Your task to perform on an android device: turn off wifi Image 0: 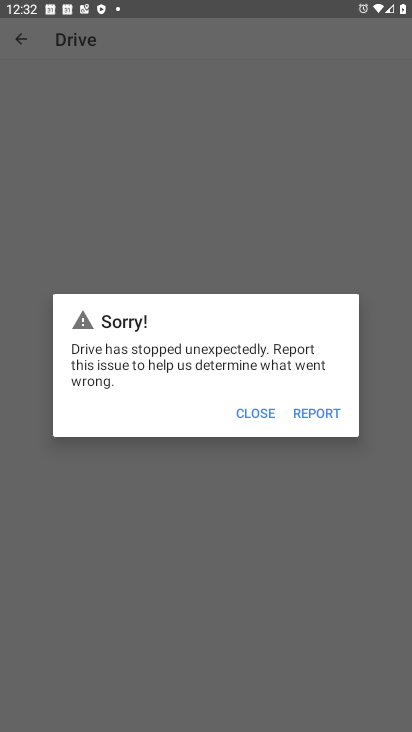
Step 0: press home button
Your task to perform on an android device: turn off wifi Image 1: 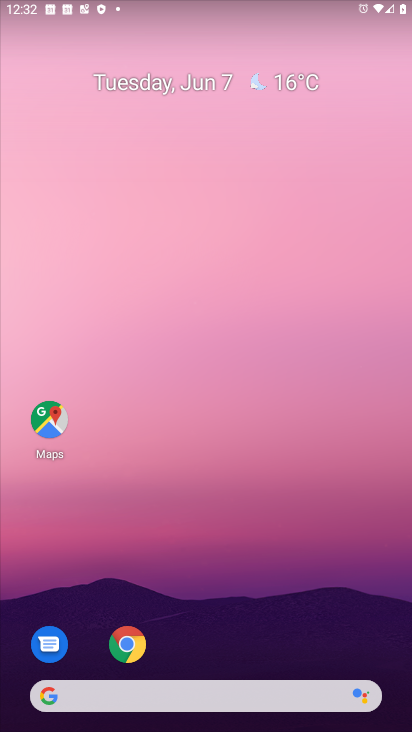
Step 1: drag from (258, 42) to (212, 503)
Your task to perform on an android device: turn off wifi Image 2: 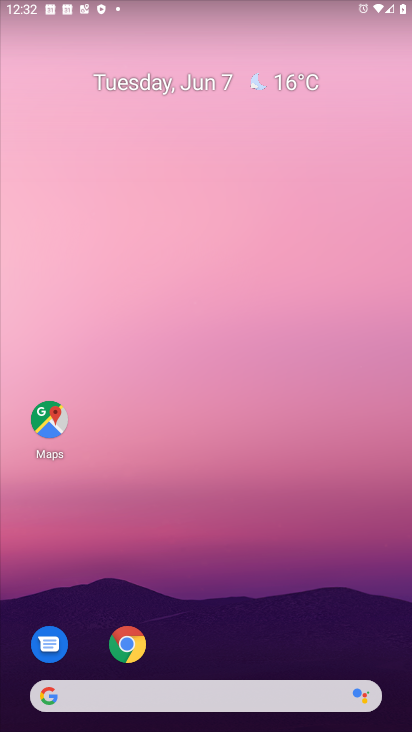
Step 2: drag from (132, 9) to (134, 559)
Your task to perform on an android device: turn off wifi Image 3: 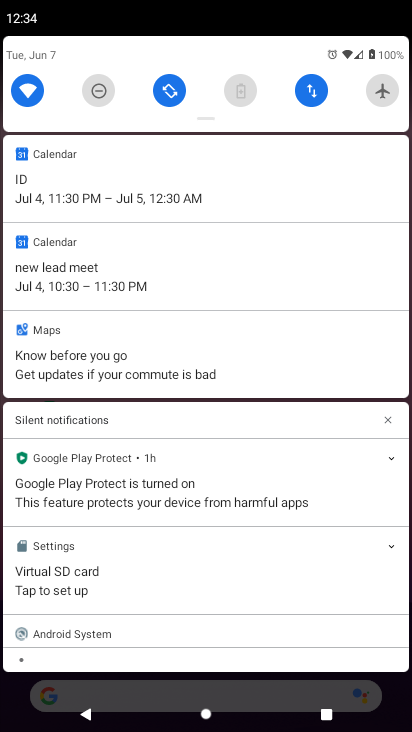
Step 3: click (24, 87)
Your task to perform on an android device: turn off wifi Image 4: 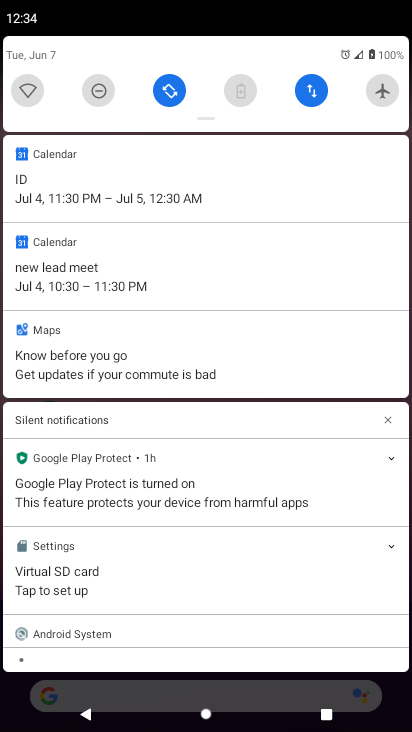
Step 4: task complete